Your task to perform on an android device: Open ESPN.com Image 0: 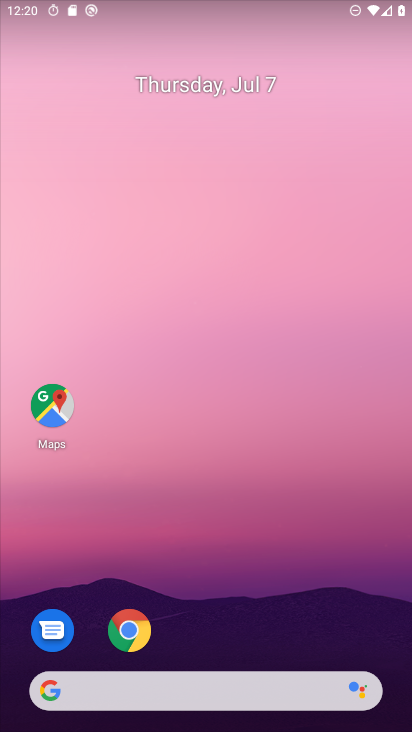
Step 0: click (143, 635)
Your task to perform on an android device: Open ESPN.com Image 1: 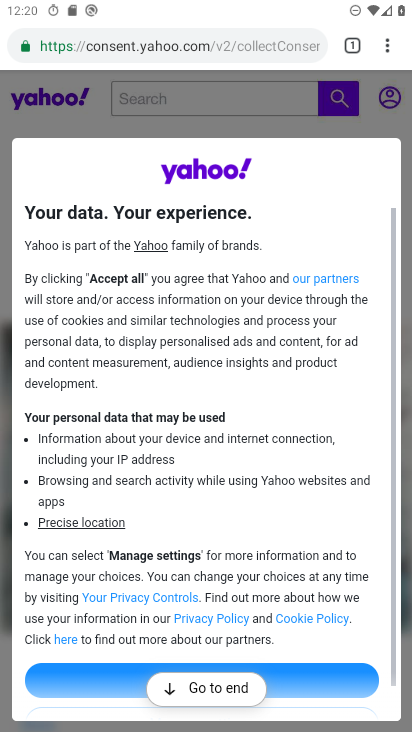
Step 1: click (147, 52)
Your task to perform on an android device: Open ESPN.com Image 2: 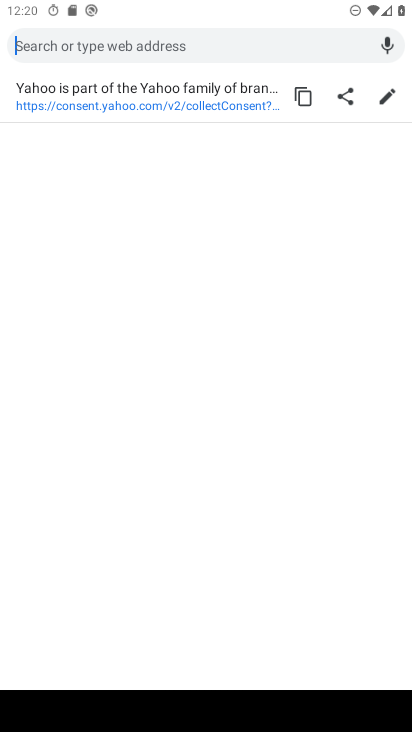
Step 2: type "ESPN.com"
Your task to perform on an android device: Open ESPN.com Image 3: 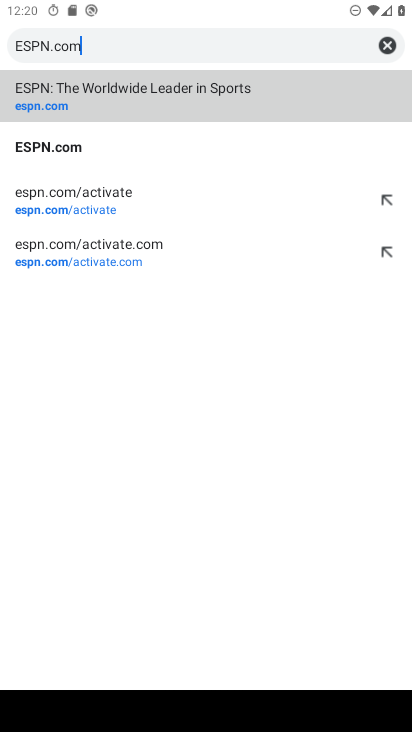
Step 3: click (32, 142)
Your task to perform on an android device: Open ESPN.com Image 4: 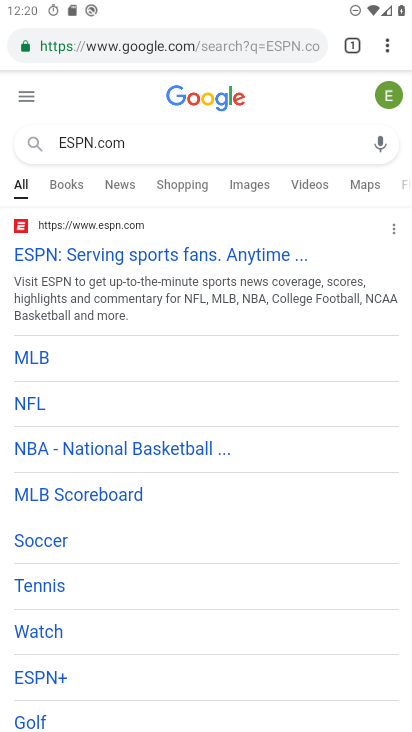
Step 4: task complete